Your task to perform on an android device: move a message to another label in the gmail app Image 0: 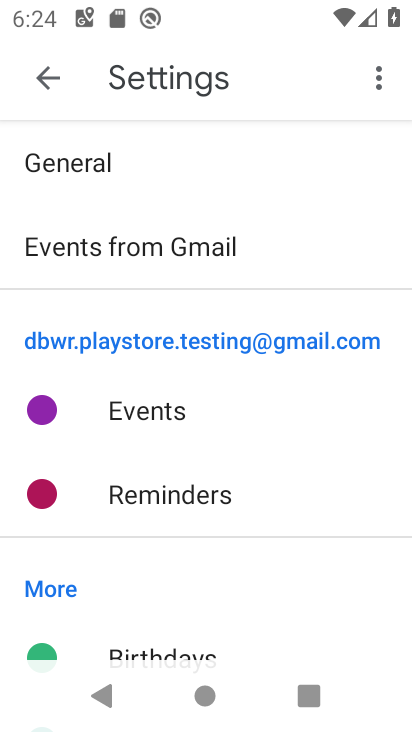
Step 0: press home button
Your task to perform on an android device: move a message to another label in the gmail app Image 1: 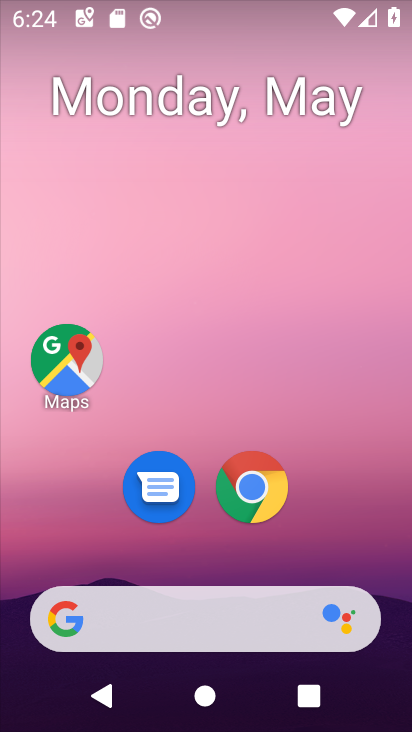
Step 1: drag from (206, 569) to (230, 78)
Your task to perform on an android device: move a message to another label in the gmail app Image 2: 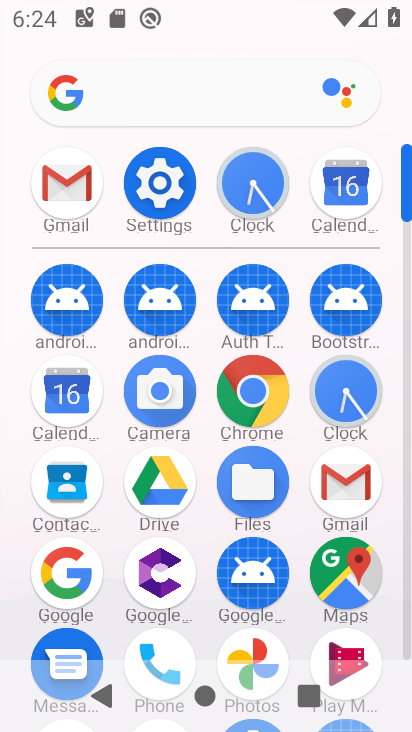
Step 2: click (348, 477)
Your task to perform on an android device: move a message to another label in the gmail app Image 3: 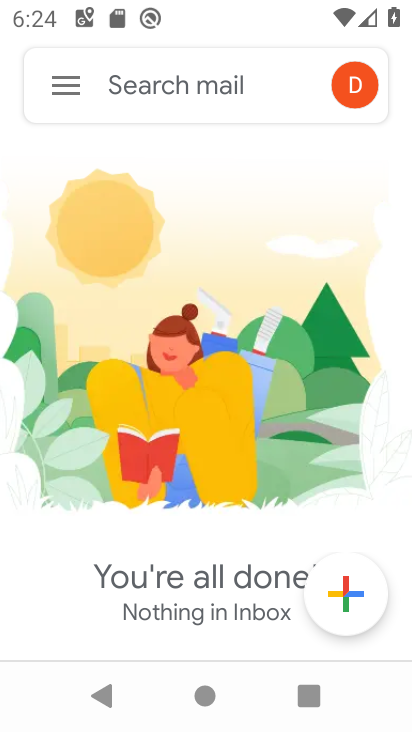
Step 3: task complete